Your task to perform on an android device: See recent photos Image 0: 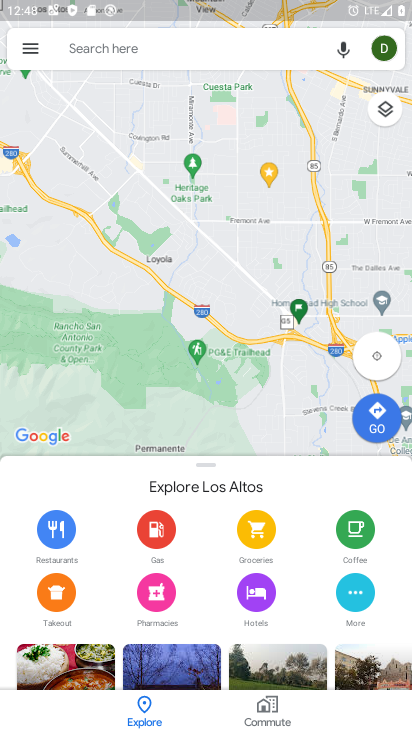
Step 0: press home button
Your task to perform on an android device: See recent photos Image 1: 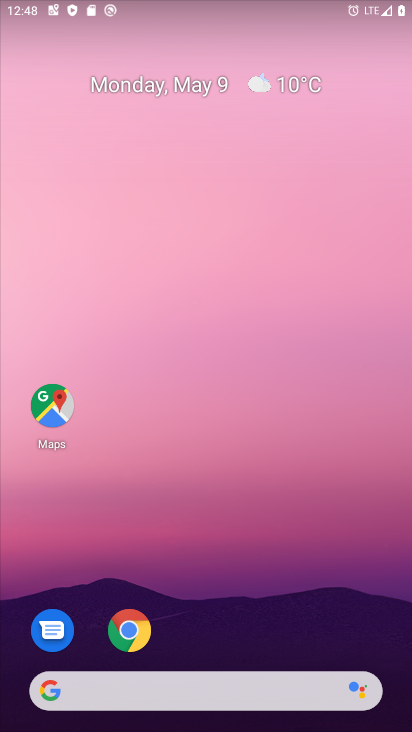
Step 1: drag from (314, 606) to (315, 46)
Your task to perform on an android device: See recent photos Image 2: 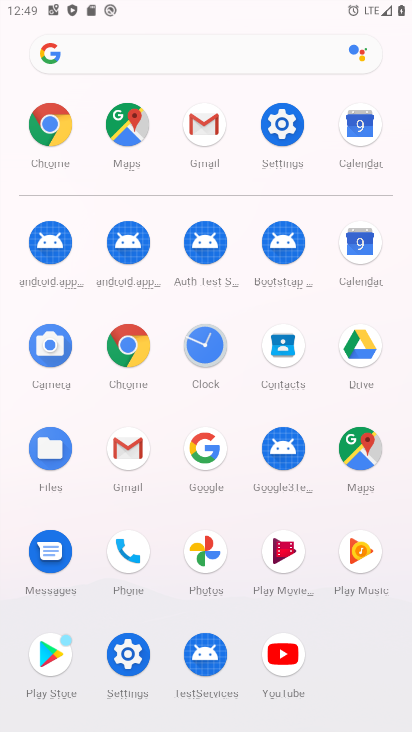
Step 2: click (199, 561)
Your task to perform on an android device: See recent photos Image 3: 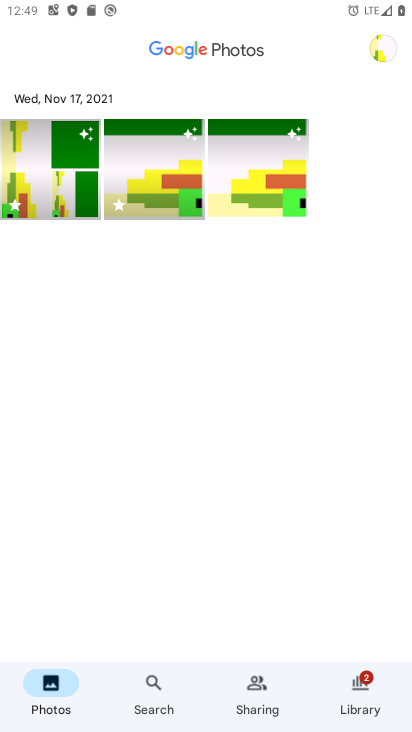
Step 3: click (88, 161)
Your task to perform on an android device: See recent photos Image 4: 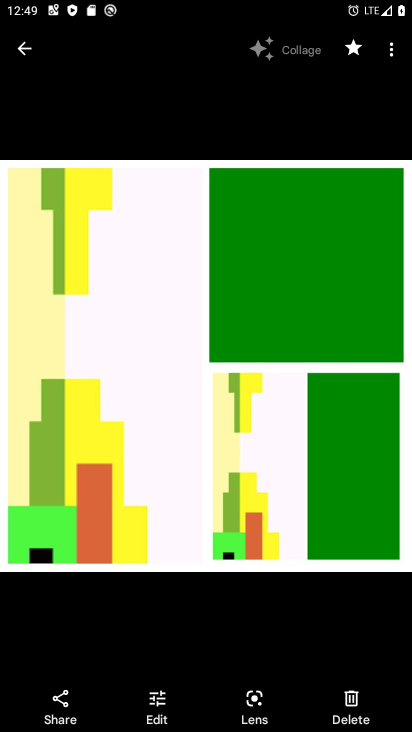
Step 4: task complete